Your task to perform on an android device: Open the calendar and show me this week's events Image 0: 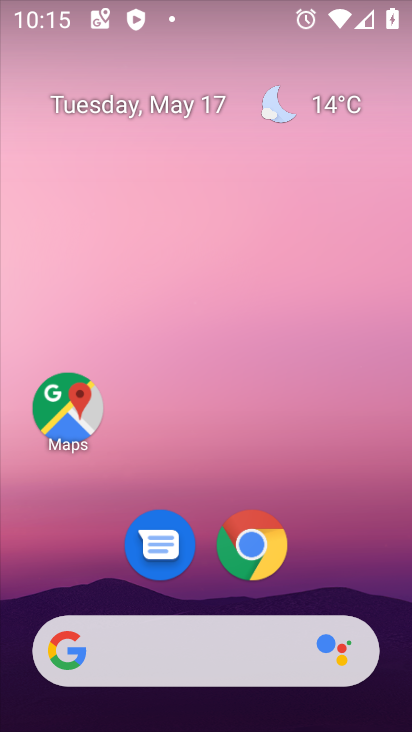
Step 0: drag from (346, 649) to (324, 146)
Your task to perform on an android device: Open the calendar and show me this week's events Image 1: 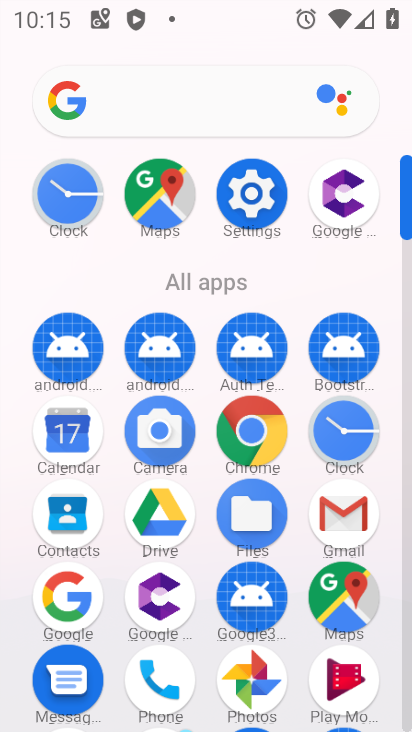
Step 1: click (63, 436)
Your task to perform on an android device: Open the calendar and show me this week's events Image 2: 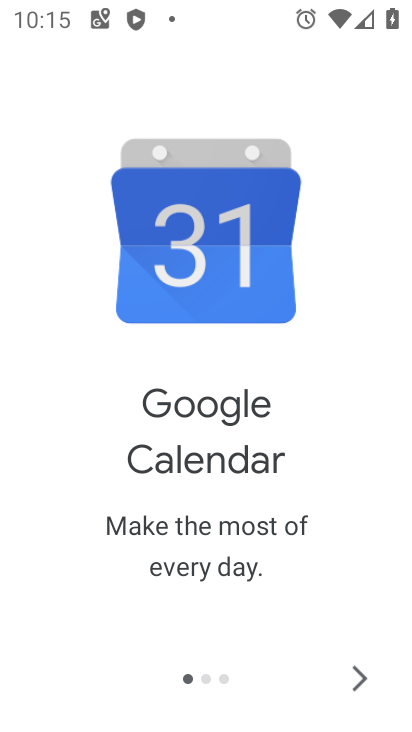
Step 2: click (383, 678)
Your task to perform on an android device: Open the calendar and show me this week's events Image 3: 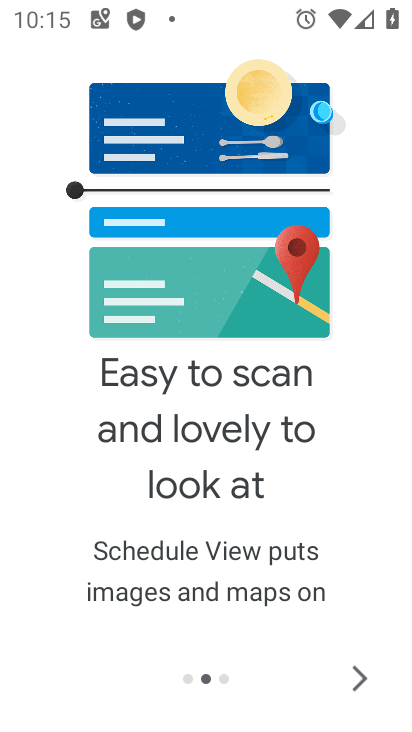
Step 3: click (383, 678)
Your task to perform on an android device: Open the calendar and show me this week's events Image 4: 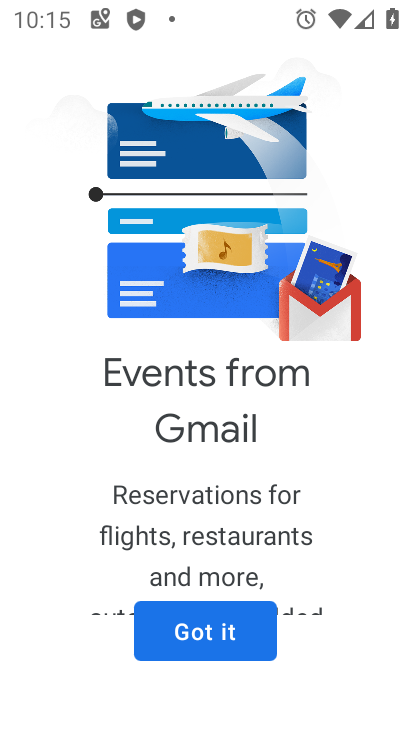
Step 4: click (259, 633)
Your task to perform on an android device: Open the calendar and show me this week's events Image 5: 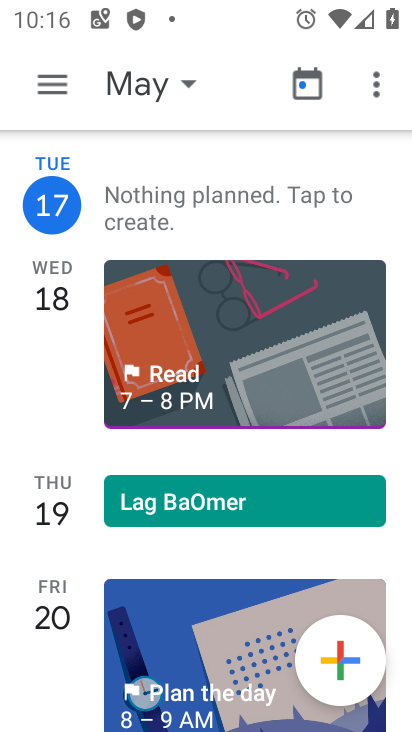
Step 5: click (193, 81)
Your task to perform on an android device: Open the calendar and show me this week's events Image 6: 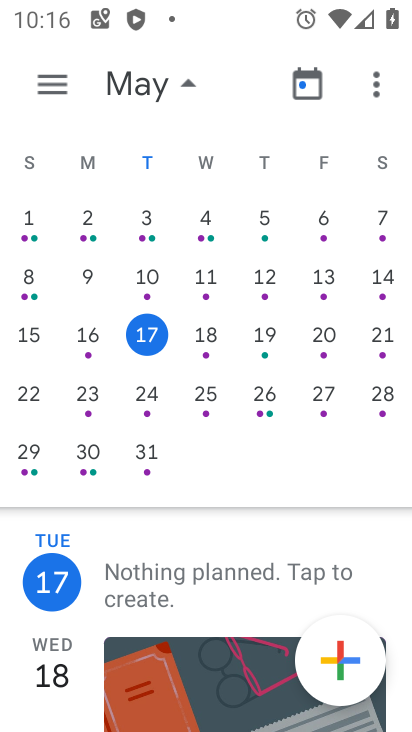
Step 6: press home button
Your task to perform on an android device: Open the calendar and show me this week's events Image 7: 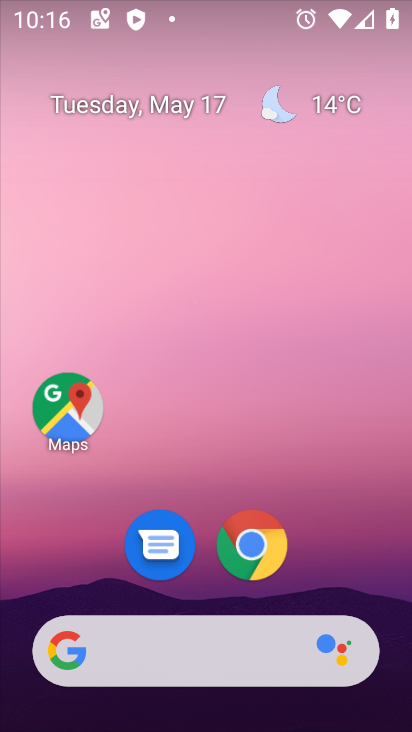
Step 7: drag from (181, 649) to (288, 190)
Your task to perform on an android device: Open the calendar and show me this week's events Image 8: 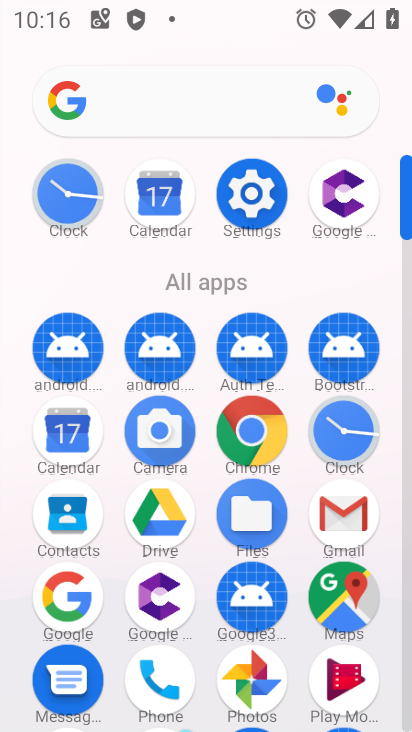
Step 8: click (79, 447)
Your task to perform on an android device: Open the calendar and show me this week's events Image 9: 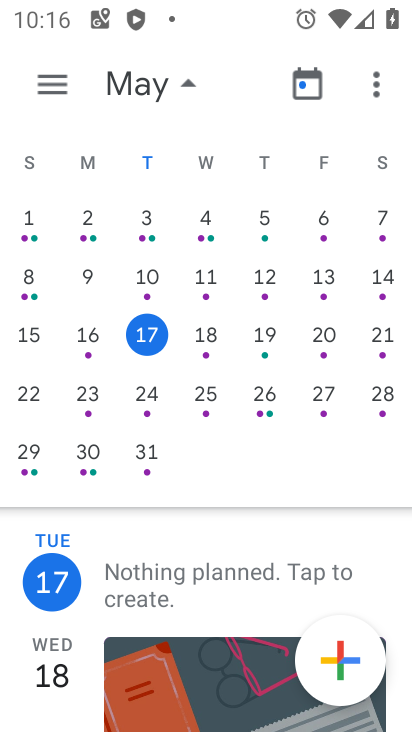
Step 9: click (264, 342)
Your task to perform on an android device: Open the calendar and show me this week's events Image 10: 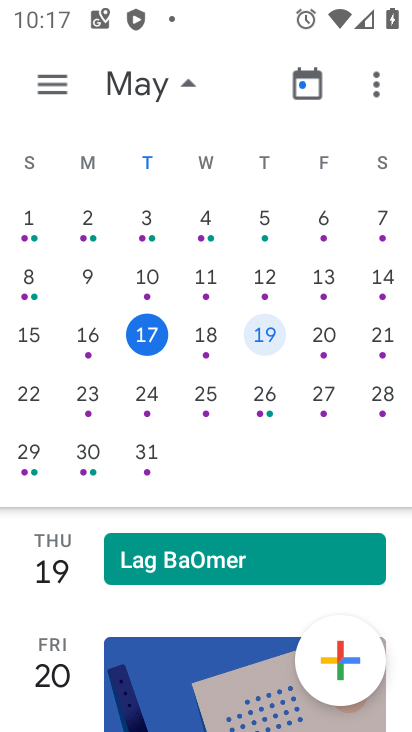
Step 10: task complete